Your task to perform on an android device: Search for Mexican restaurants on Maps Image 0: 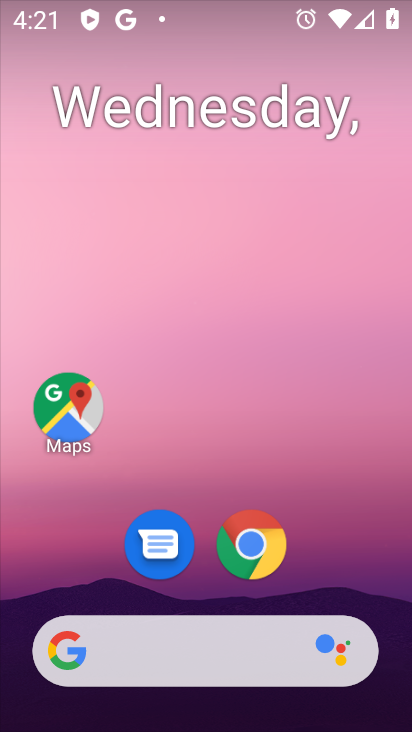
Step 0: drag from (387, 595) to (364, 284)
Your task to perform on an android device: Search for Mexican restaurants on Maps Image 1: 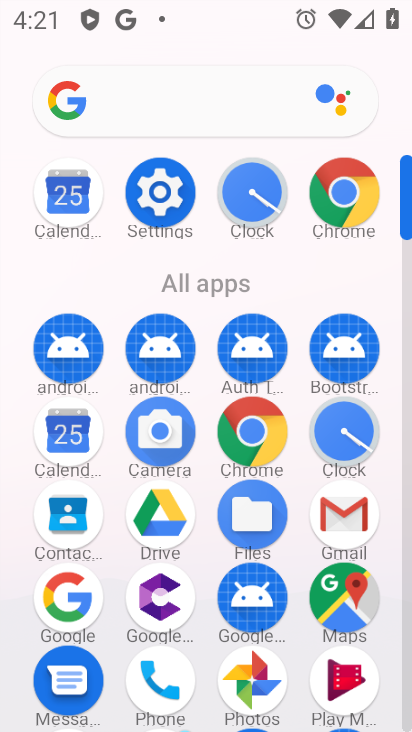
Step 1: click (312, 621)
Your task to perform on an android device: Search for Mexican restaurants on Maps Image 2: 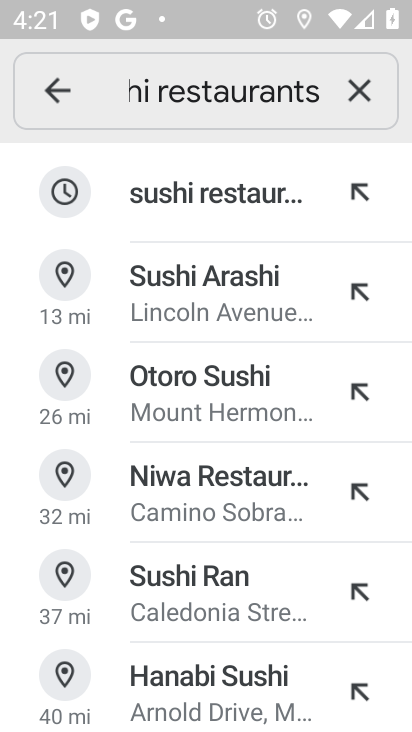
Step 2: click (359, 83)
Your task to perform on an android device: Search for Mexican restaurants on Maps Image 3: 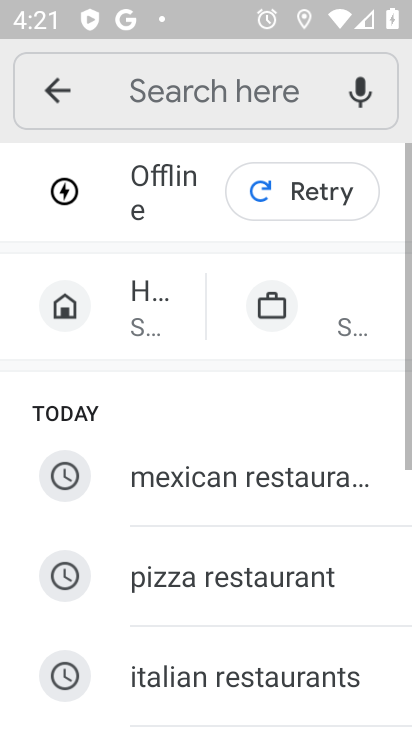
Step 3: click (239, 101)
Your task to perform on an android device: Search for Mexican restaurants on Maps Image 4: 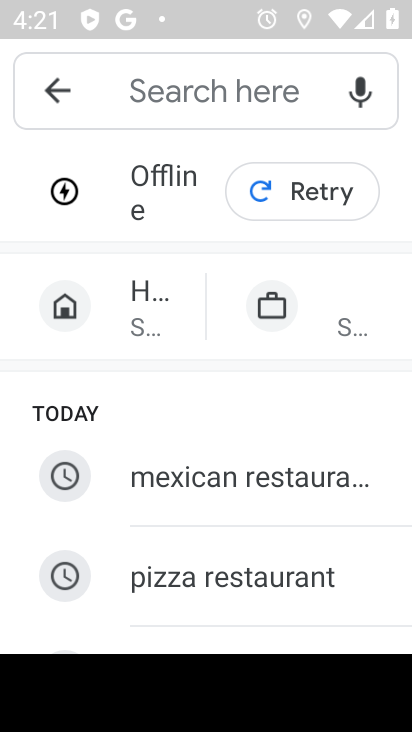
Step 4: type "mexcian restaurants"
Your task to perform on an android device: Search for Mexican restaurants on Maps Image 5: 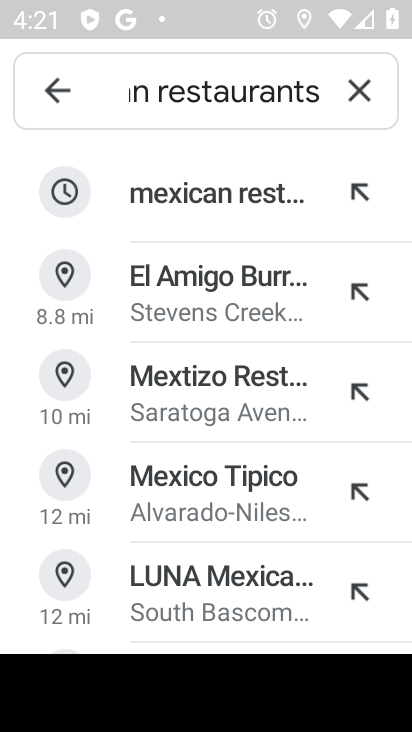
Step 5: click (231, 220)
Your task to perform on an android device: Search for Mexican restaurants on Maps Image 6: 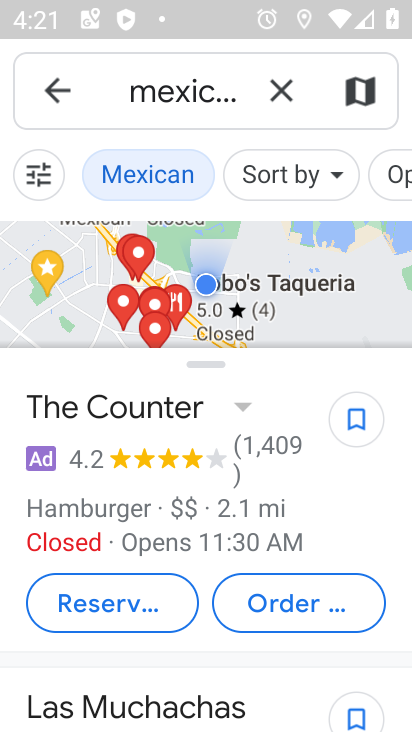
Step 6: task complete